Your task to perform on an android device: Open maps Image 0: 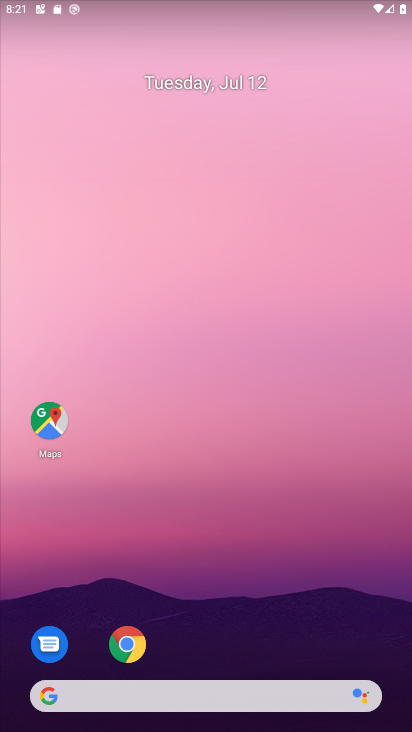
Step 0: drag from (203, 672) to (183, 99)
Your task to perform on an android device: Open maps Image 1: 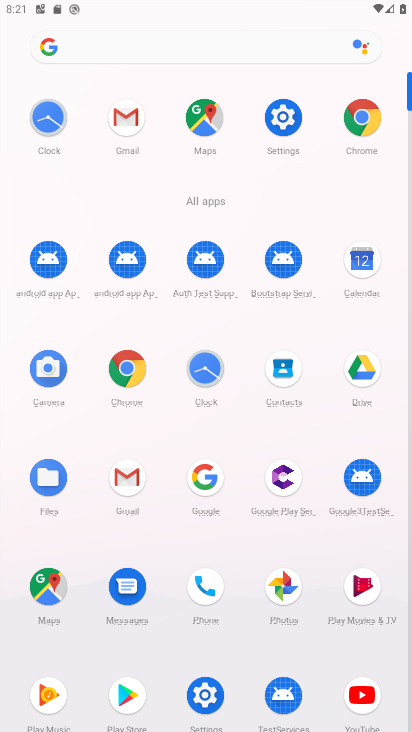
Step 1: click (211, 129)
Your task to perform on an android device: Open maps Image 2: 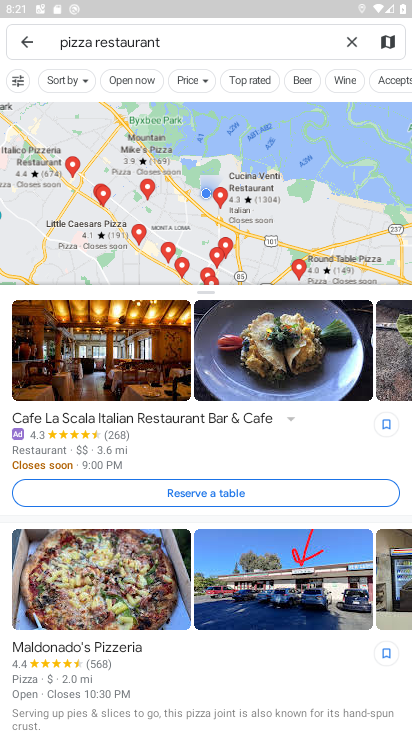
Step 2: task complete